Your task to perform on an android device: Go to Google Image 0: 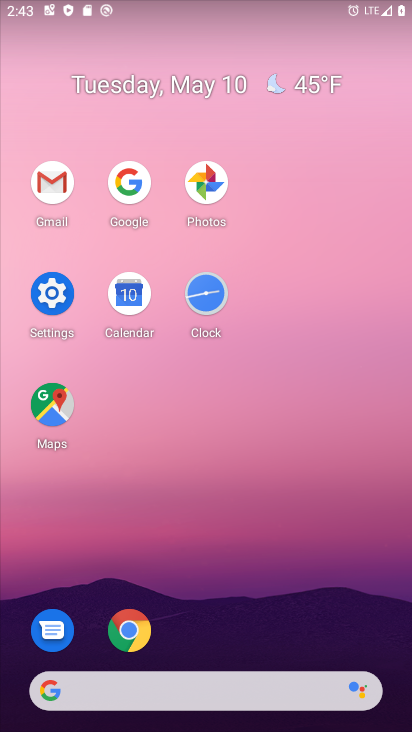
Step 0: click (131, 183)
Your task to perform on an android device: Go to Google Image 1: 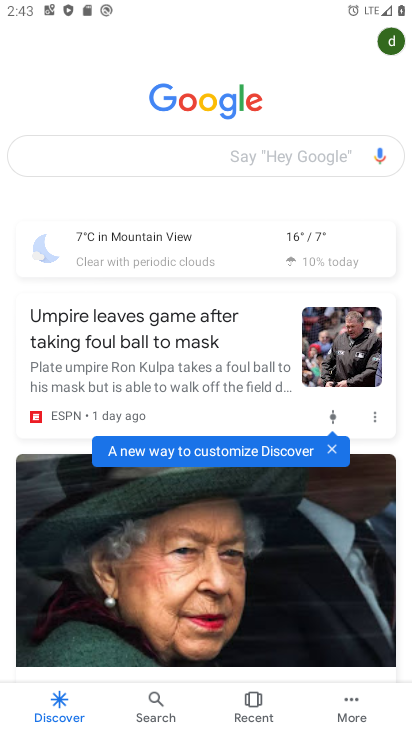
Step 1: task complete